Your task to perform on an android device: add a label to a message in the gmail app Image 0: 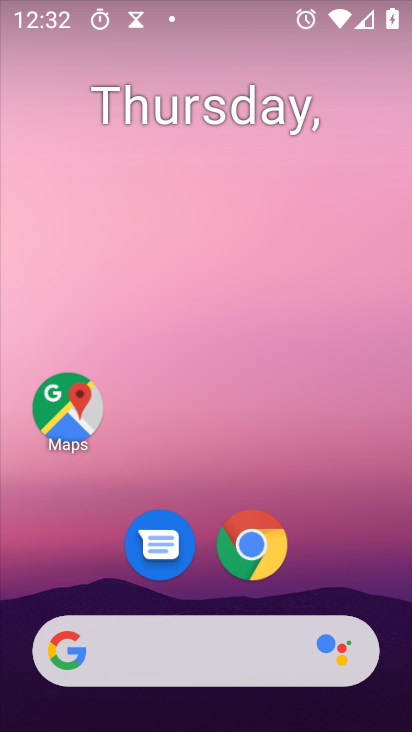
Step 0: press home button
Your task to perform on an android device: add a label to a message in the gmail app Image 1: 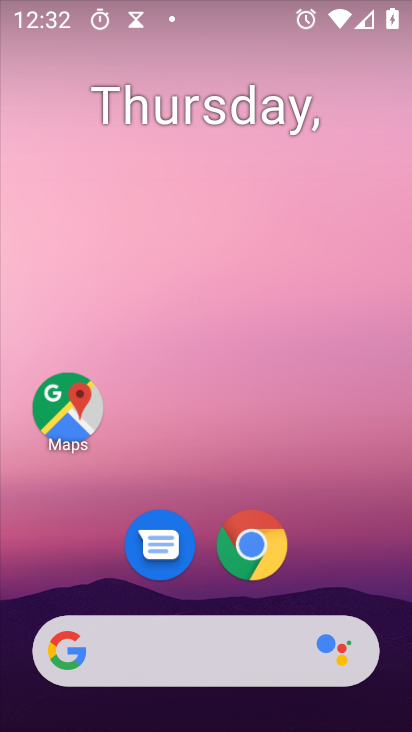
Step 1: drag from (148, 653) to (306, 153)
Your task to perform on an android device: add a label to a message in the gmail app Image 2: 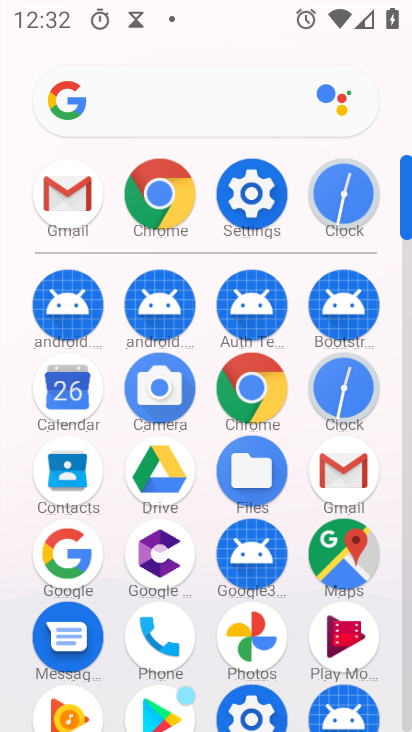
Step 2: click (74, 201)
Your task to perform on an android device: add a label to a message in the gmail app Image 3: 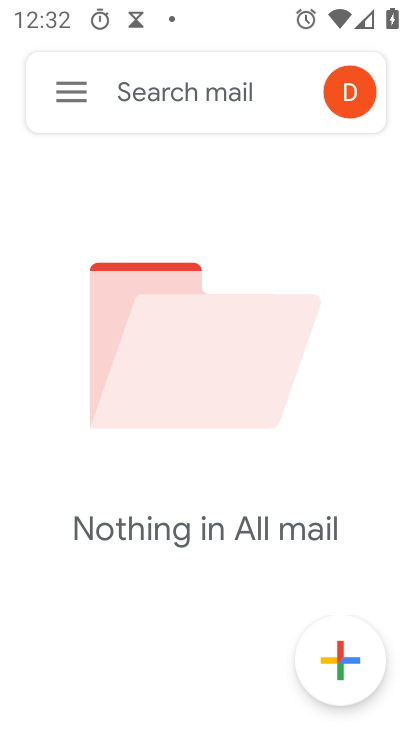
Step 3: task complete